Your task to perform on an android device: toggle location history Image 0: 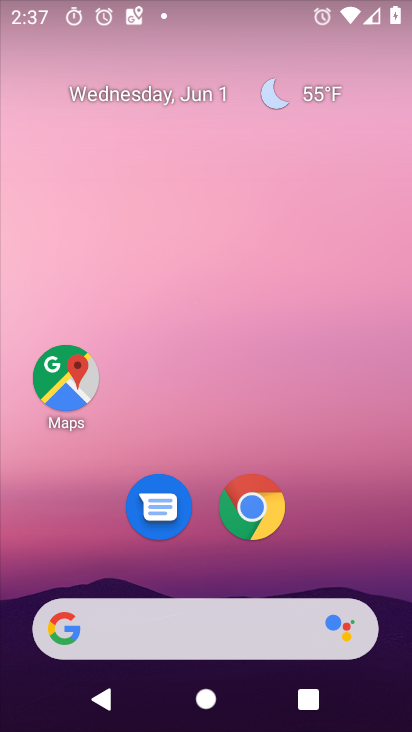
Step 0: click (59, 378)
Your task to perform on an android device: toggle location history Image 1: 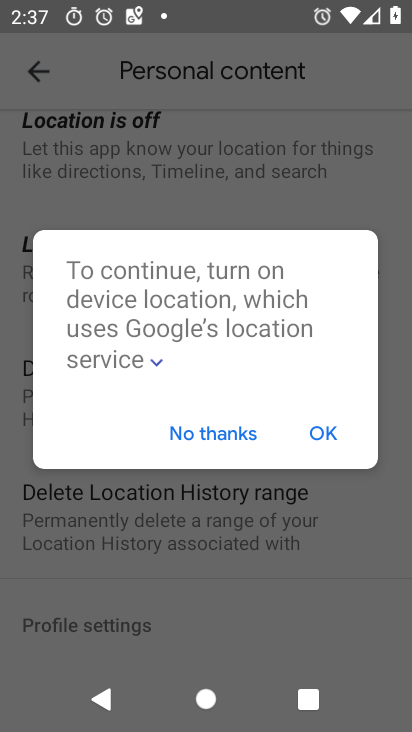
Step 1: click (209, 436)
Your task to perform on an android device: toggle location history Image 2: 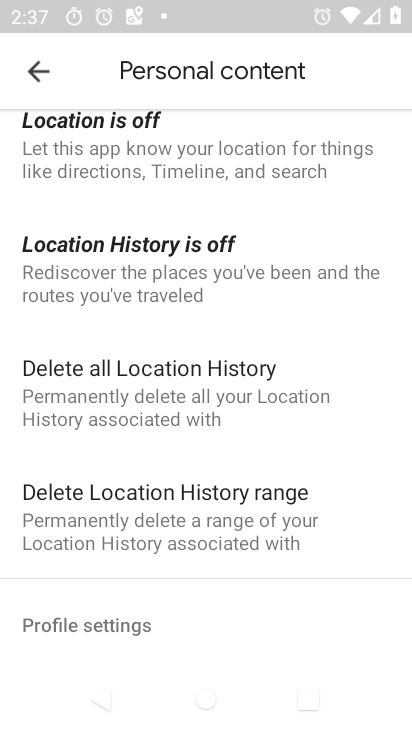
Step 2: click (34, 79)
Your task to perform on an android device: toggle location history Image 3: 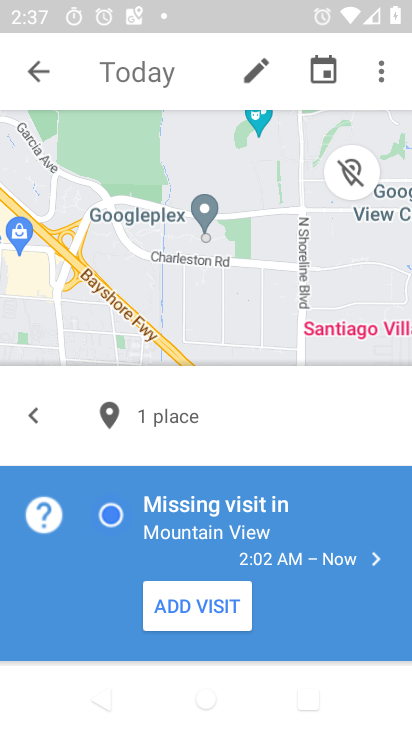
Step 3: click (384, 71)
Your task to perform on an android device: toggle location history Image 4: 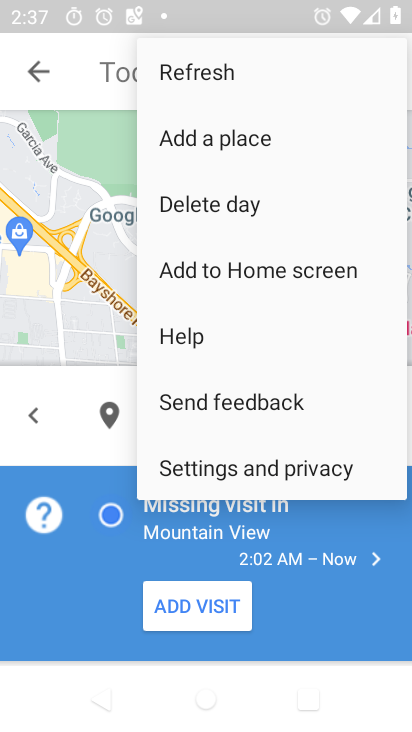
Step 4: click (237, 465)
Your task to perform on an android device: toggle location history Image 5: 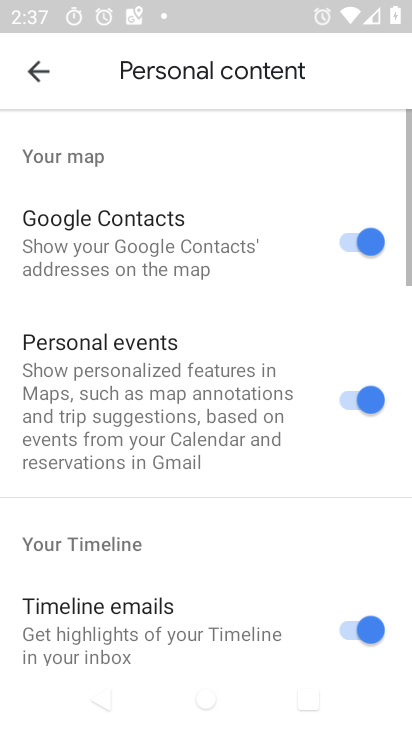
Step 5: drag from (186, 518) to (200, 27)
Your task to perform on an android device: toggle location history Image 6: 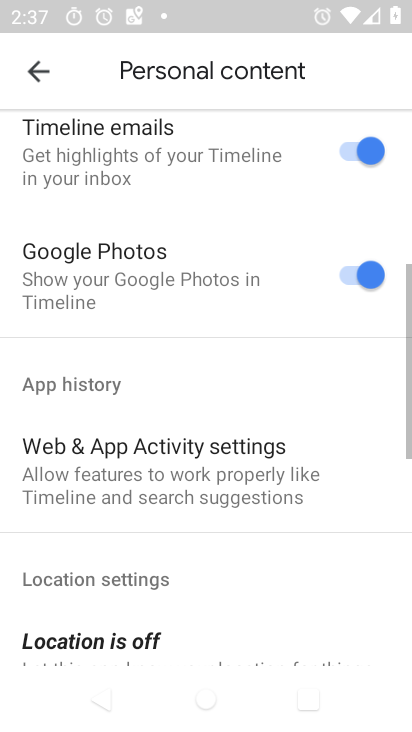
Step 6: drag from (171, 496) to (171, 93)
Your task to perform on an android device: toggle location history Image 7: 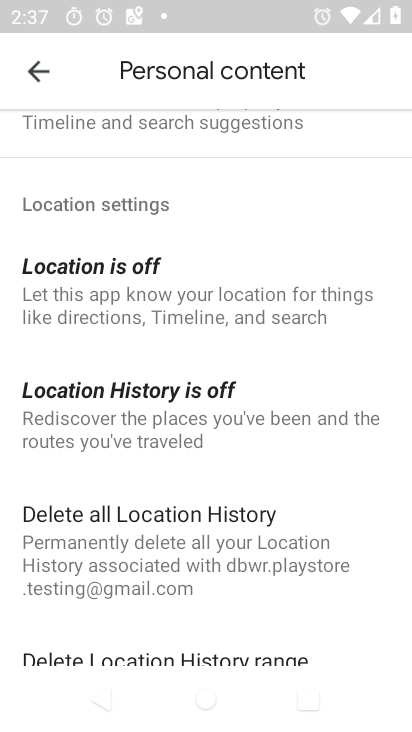
Step 7: click (120, 422)
Your task to perform on an android device: toggle location history Image 8: 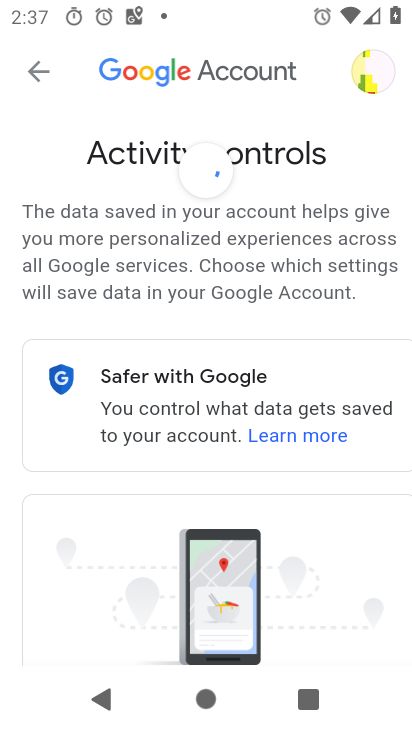
Step 8: drag from (269, 588) to (296, 102)
Your task to perform on an android device: toggle location history Image 9: 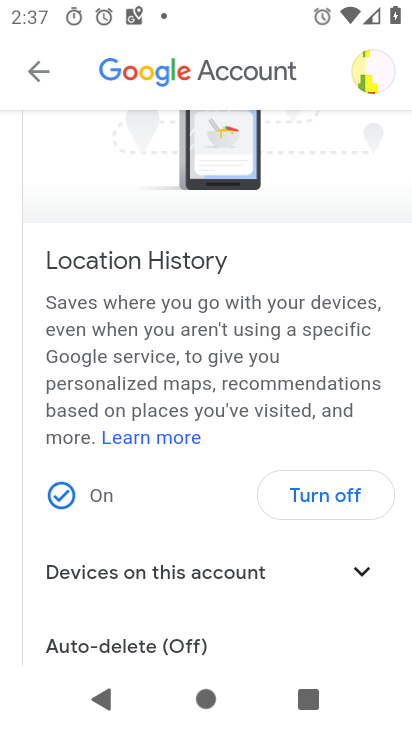
Step 9: click (333, 502)
Your task to perform on an android device: toggle location history Image 10: 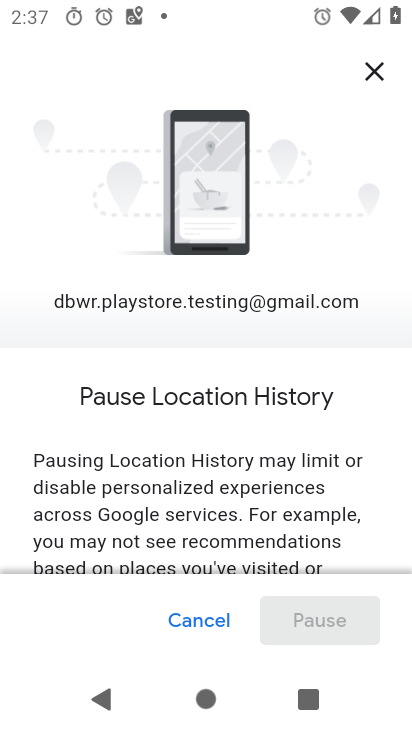
Step 10: drag from (230, 530) to (232, 1)
Your task to perform on an android device: toggle location history Image 11: 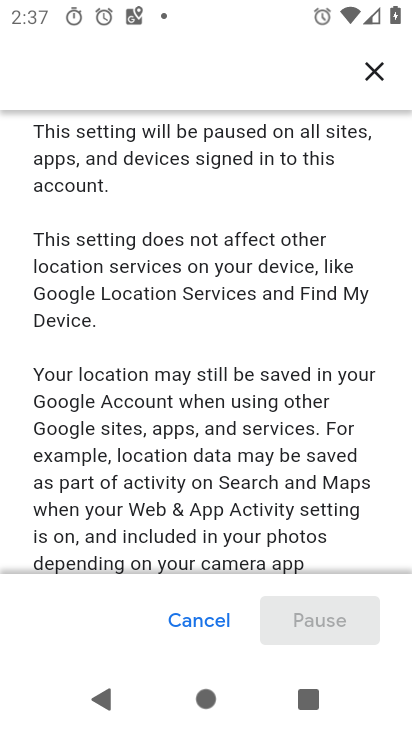
Step 11: drag from (210, 376) to (213, 161)
Your task to perform on an android device: toggle location history Image 12: 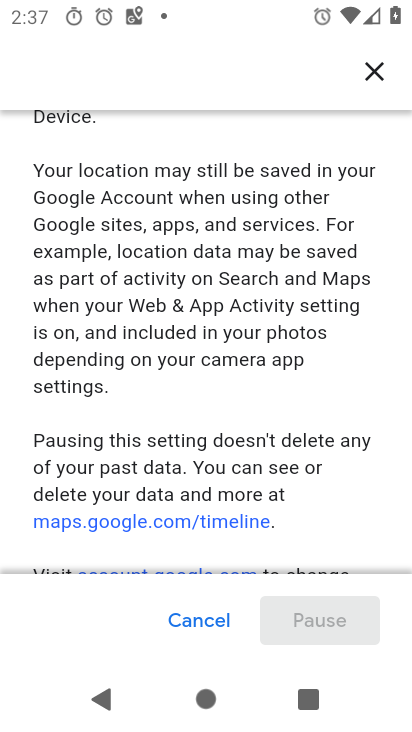
Step 12: drag from (225, 499) to (235, 167)
Your task to perform on an android device: toggle location history Image 13: 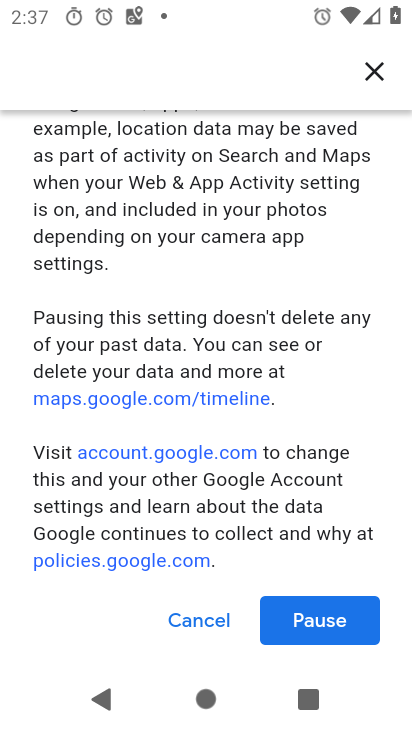
Step 13: click (305, 630)
Your task to perform on an android device: toggle location history Image 14: 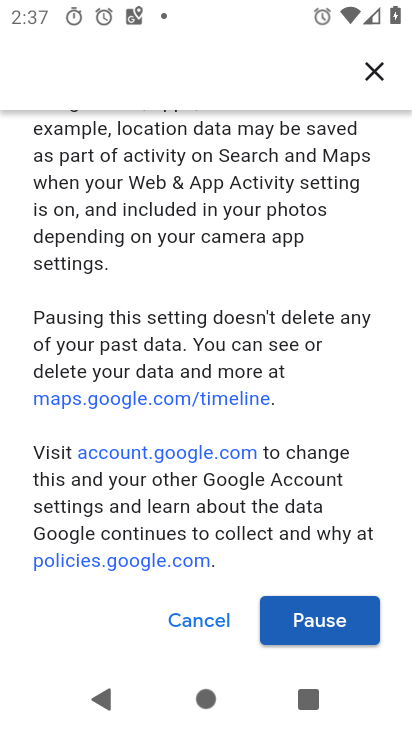
Step 14: click (322, 619)
Your task to perform on an android device: toggle location history Image 15: 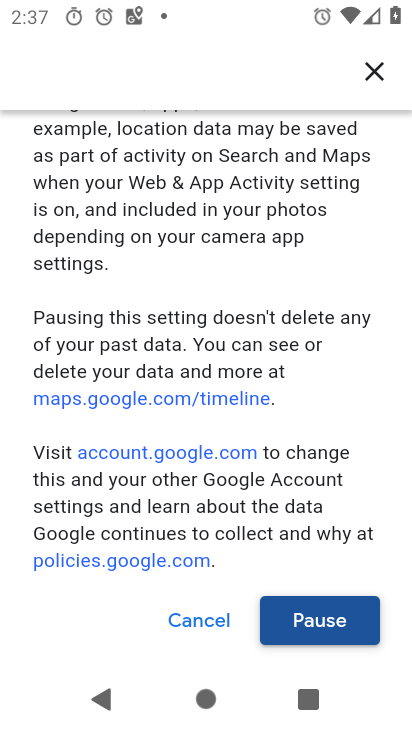
Step 15: drag from (265, 514) to (287, 331)
Your task to perform on an android device: toggle location history Image 16: 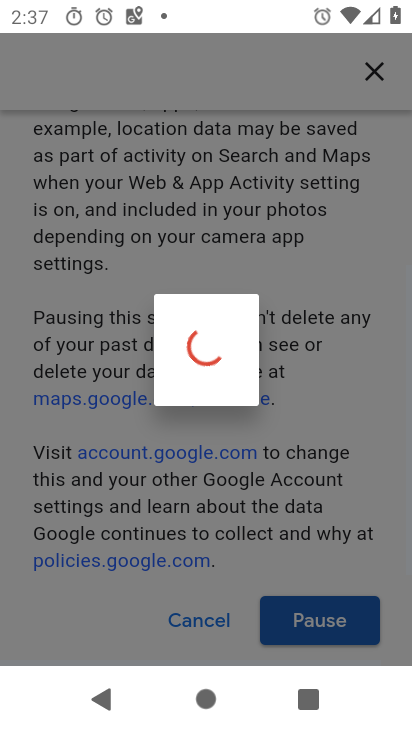
Step 16: click (336, 642)
Your task to perform on an android device: toggle location history Image 17: 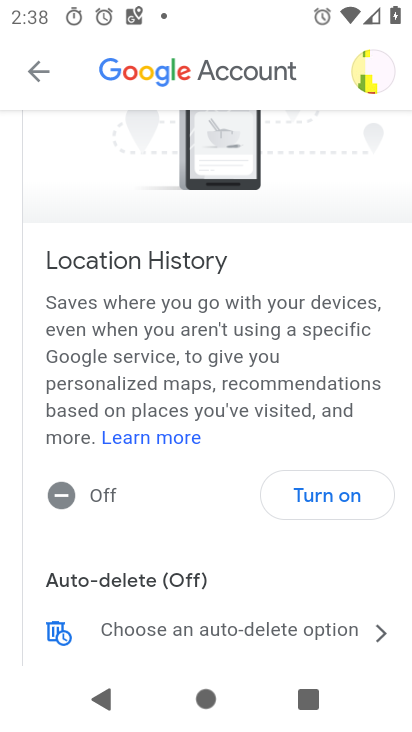
Step 17: task complete